Your task to perform on an android device: Go to network settings Image 0: 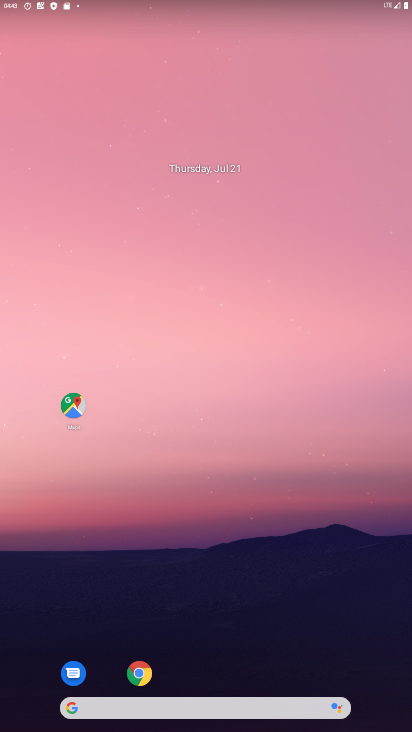
Step 0: drag from (276, 614) to (273, 73)
Your task to perform on an android device: Go to network settings Image 1: 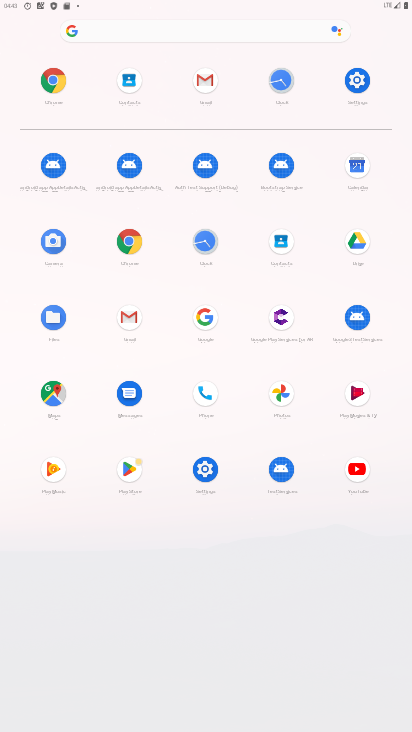
Step 1: click (356, 68)
Your task to perform on an android device: Go to network settings Image 2: 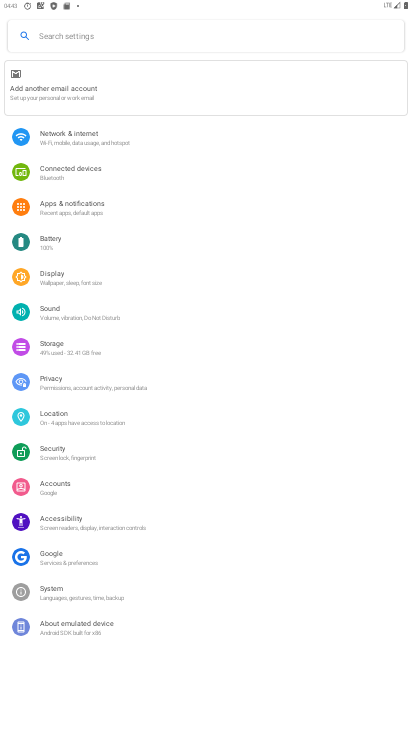
Step 2: click (75, 133)
Your task to perform on an android device: Go to network settings Image 3: 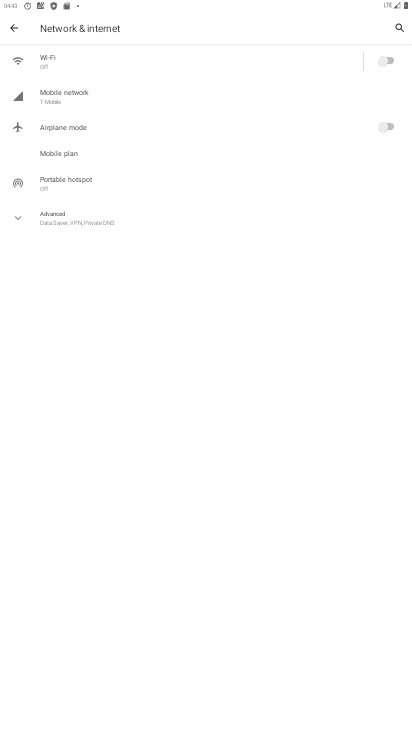
Step 3: task complete